Your task to perform on an android device: Open calendar and show me the first week of next month Image 0: 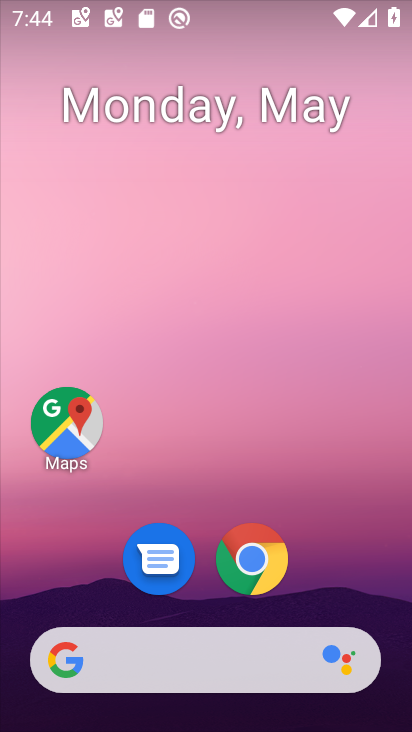
Step 0: drag from (402, 652) to (317, 60)
Your task to perform on an android device: Open calendar and show me the first week of next month Image 1: 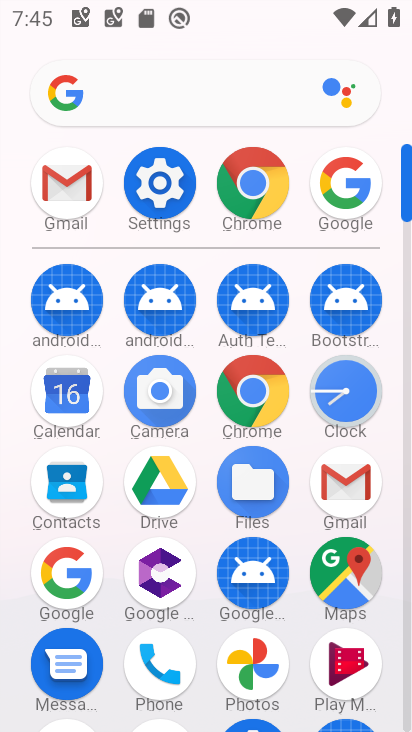
Step 1: click (59, 397)
Your task to perform on an android device: Open calendar and show me the first week of next month Image 2: 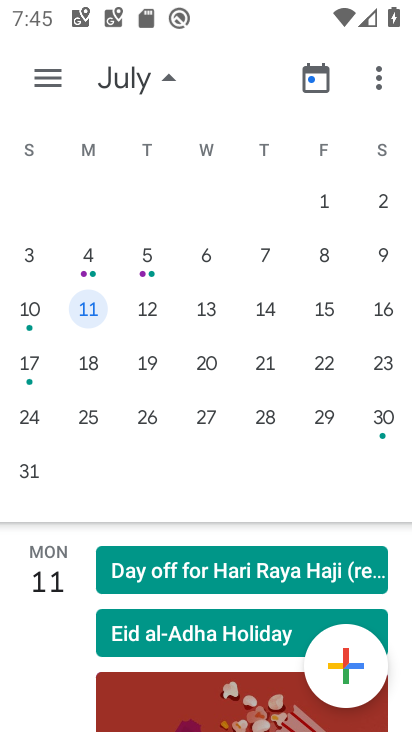
Step 2: drag from (344, 348) to (7, 289)
Your task to perform on an android device: Open calendar and show me the first week of next month Image 3: 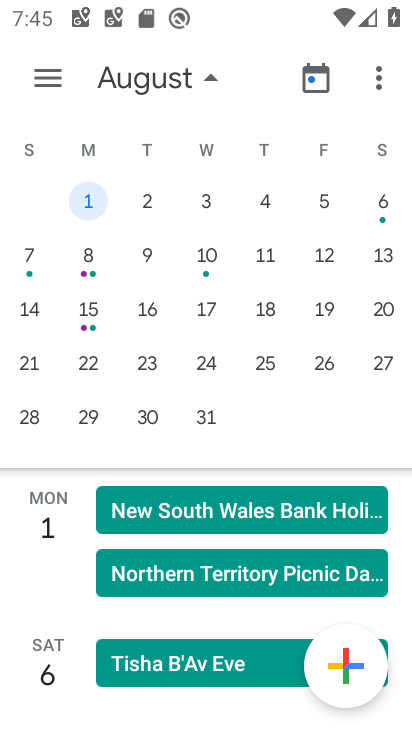
Step 3: click (91, 271)
Your task to perform on an android device: Open calendar and show me the first week of next month Image 4: 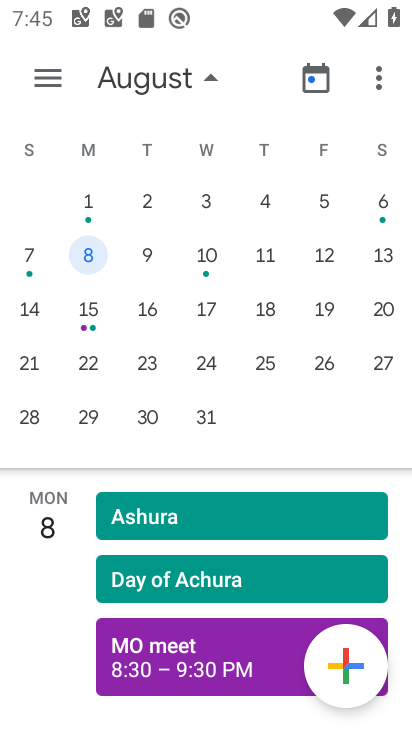
Step 4: task complete